Your task to perform on an android device: change keyboard looks Image 0: 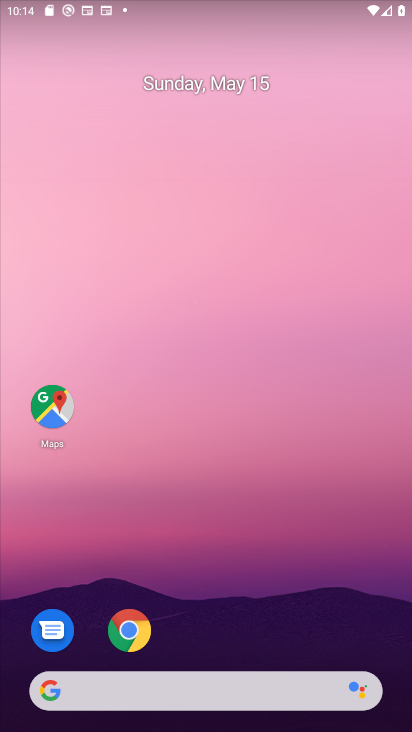
Step 0: drag from (201, 643) to (241, 1)
Your task to perform on an android device: change keyboard looks Image 1: 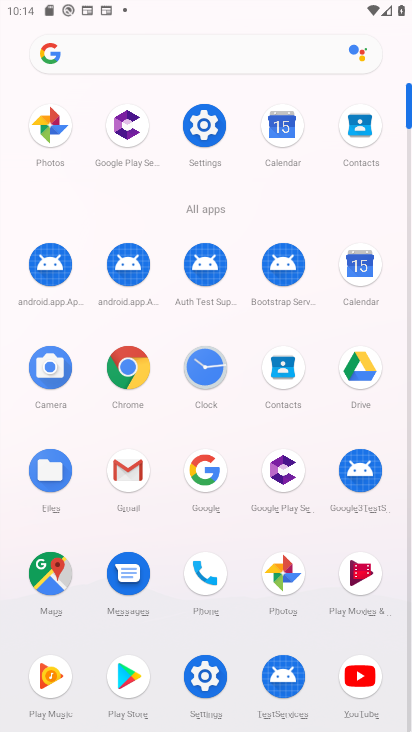
Step 1: click (199, 670)
Your task to perform on an android device: change keyboard looks Image 2: 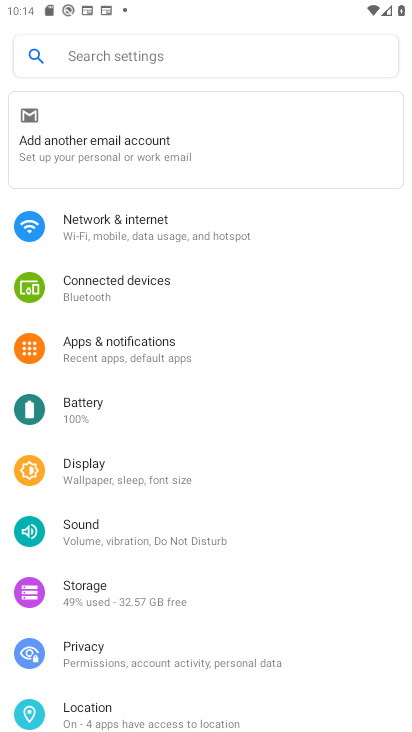
Step 2: drag from (188, 674) to (205, 59)
Your task to perform on an android device: change keyboard looks Image 3: 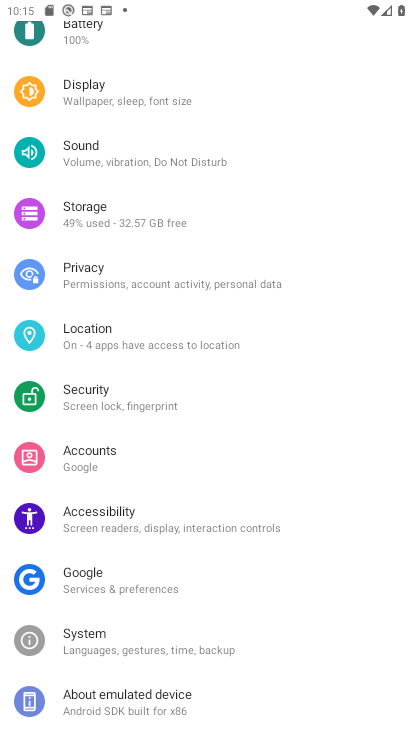
Step 3: click (118, 629)
Your task to perform on an android device: change keyboard looks Image 4: 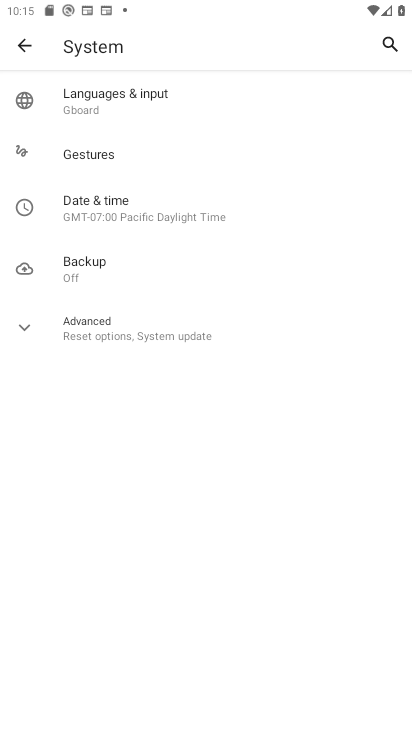
Step 4: click (82, 100)
Your task to perform on an android device: change keyboard looks Image 5: 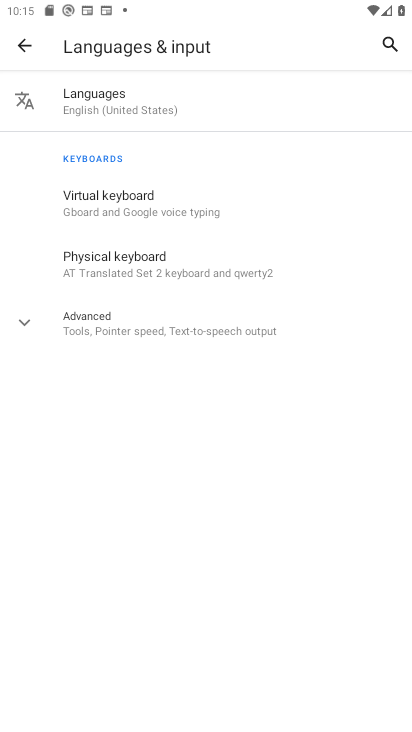
Step 5: click (118, 206)
Your task to perform on an android device: change keyboard looks Image 6: 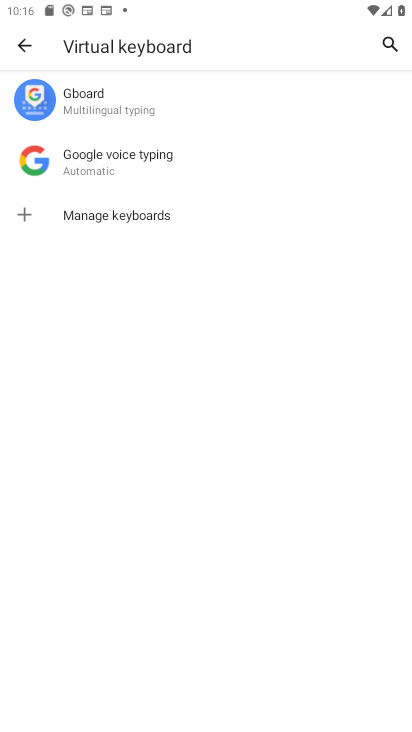
Step 6: click (96, 110)
Your task to perform on an android device: change keyboard looks Image 7: 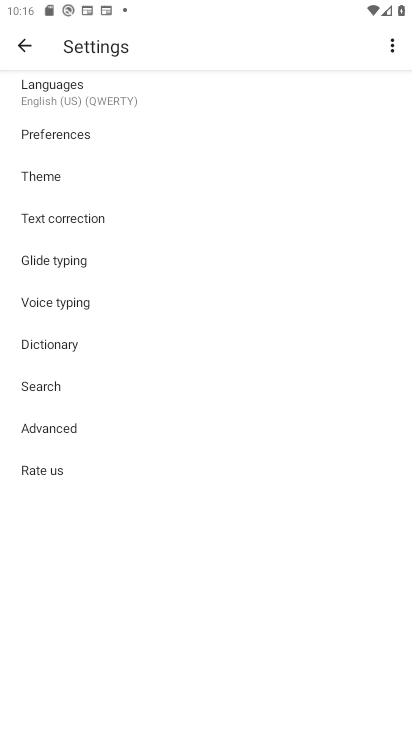
Step 7: click (69, 172)
Your task to perform on an android device: change keyboard looks Image 8: 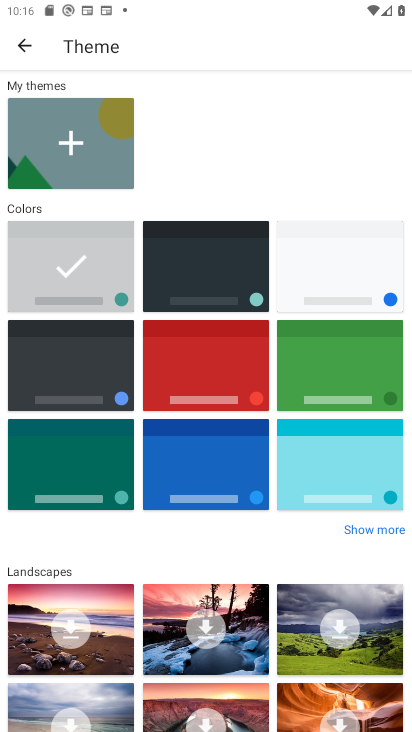
Step 8: click (253, 365)
Your task to perform on an android device: change keyboard looks Image 9: 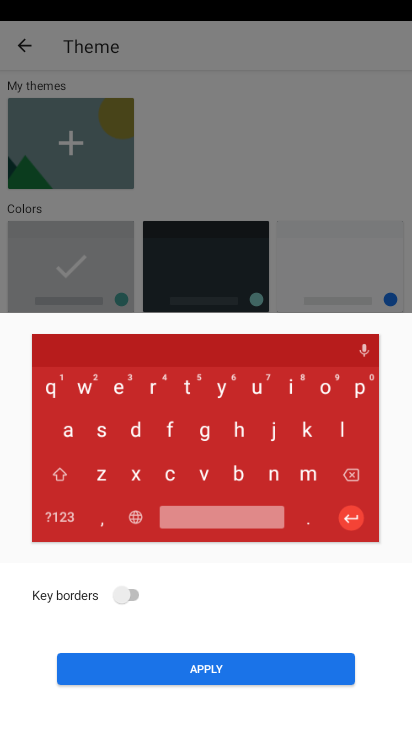
Step 9: click (215, 669)
Your task to perform on an android device: change keyboard looks Image 10: 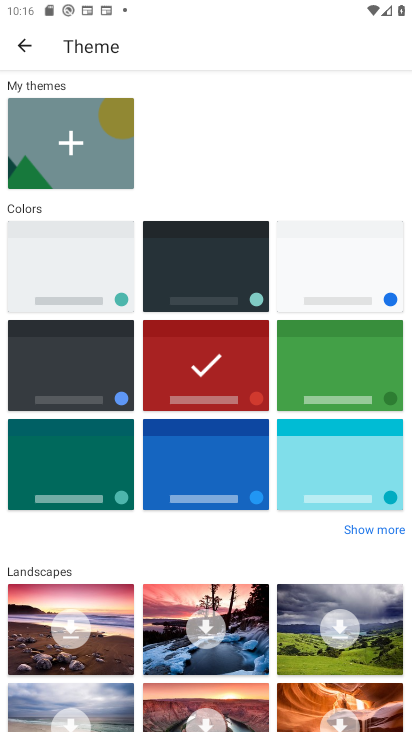
Step 10: task complete